Your task to perform on an android device: turn on the 12-hour format for clock Image 0: 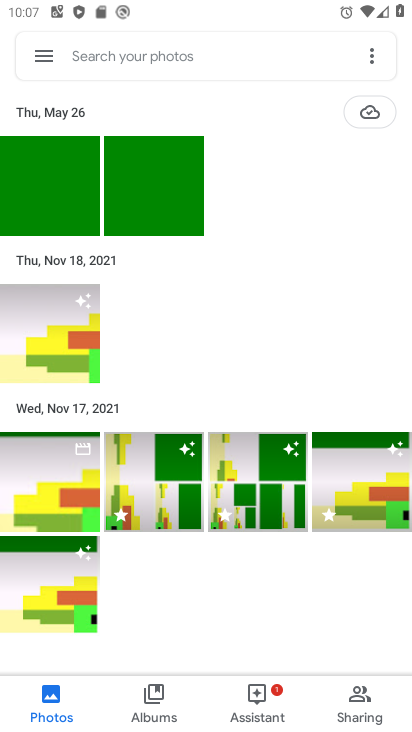
Step 0: press home button
Your task to perform on an android device: turn on the 12-hour format for clock Image 1: 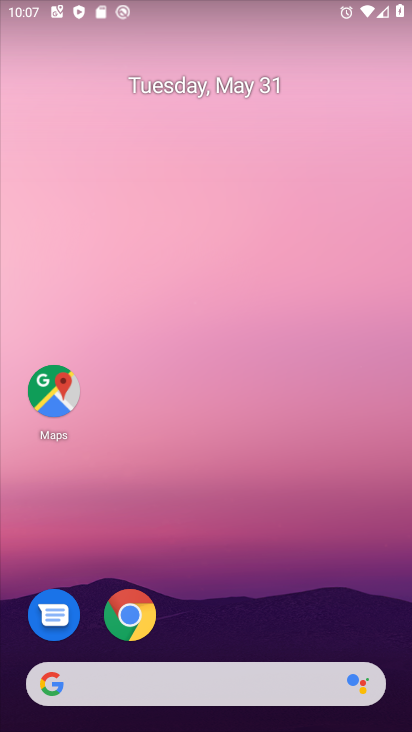
Step 1: drag from (369, 595) to (9, 379)
Your task to perform on an android device: turn on the 12-hour format for clock Image 2: 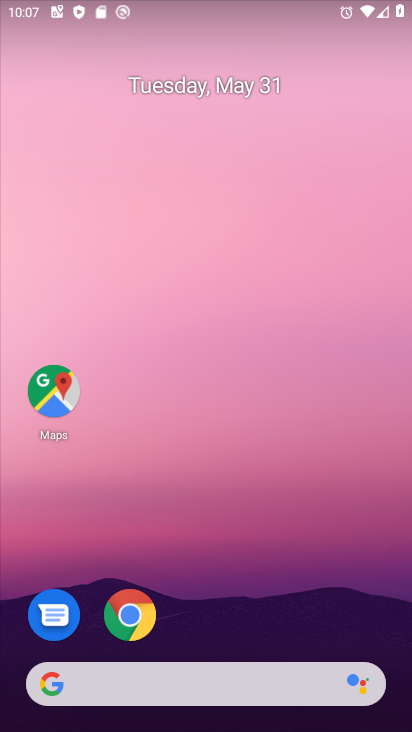
Step 2: drag from (280, 625) to (295, 48)
Your task to perform on an android device: turn on the 12-hour format for clock Image 3: 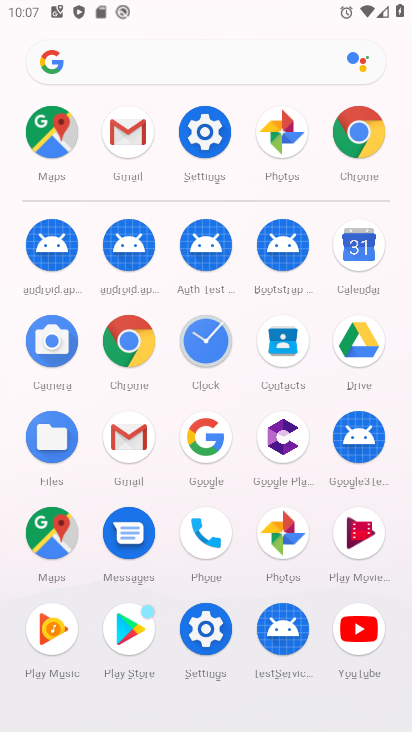
Step 3: click (204, 338)
Your task to perform on an android device: turn on the 12-hour format for clock Image 4: 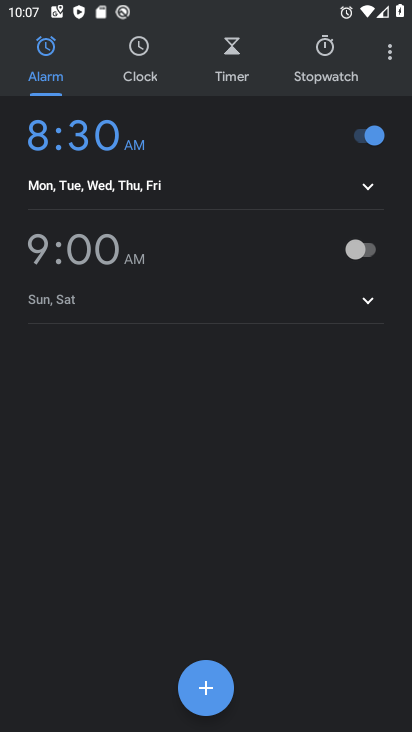
Step 4: click (387, 54)
Your task to perform on an android device: turn on the 12-hour format for clock Image 5: 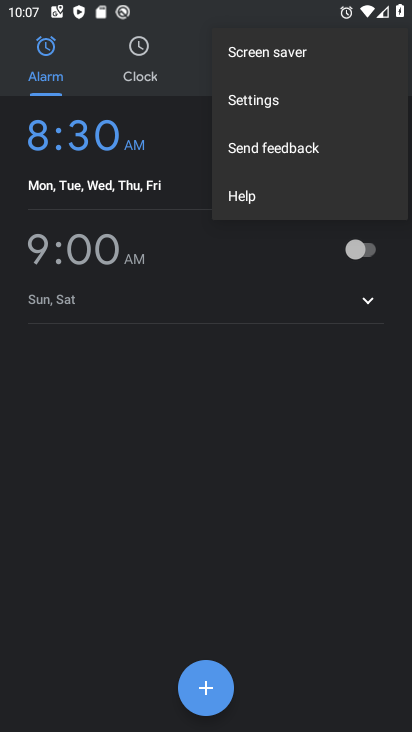
Step 5: click (272, 99)
Your task to perform on an android device: turn on the 12-hour format for clock Image 6: 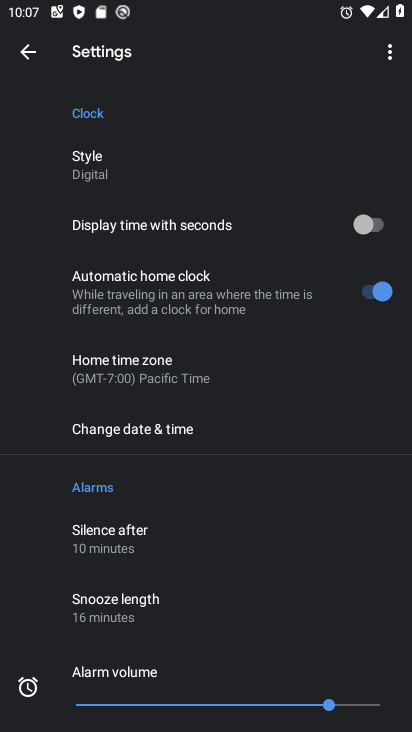
Step 6: click (139, 430)
Your task to perform on an android device: turn on the 12-hour format for clock Image 7: 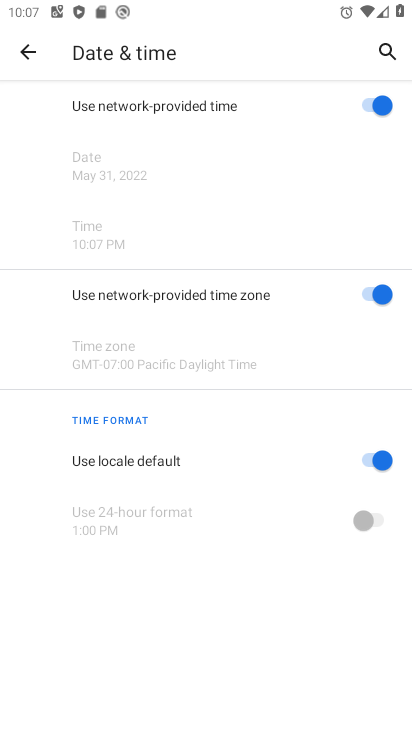
Step 7: task complete